Your task to perform on an android device: Go to accessibility settings Image 0: 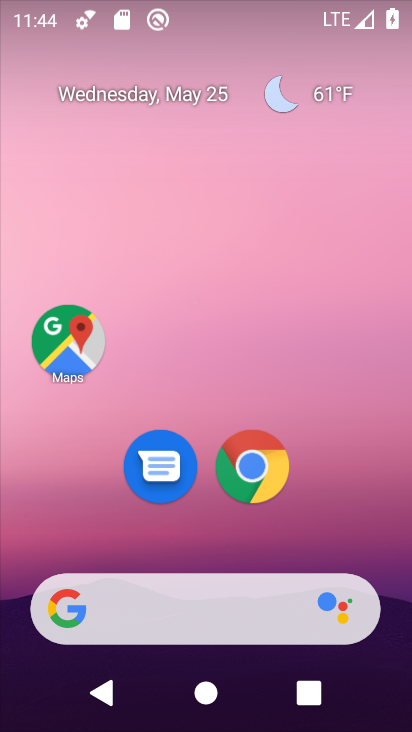
Step 0: drag from (204, 554) to (224, 19)
Your task to perform on an android device: Go to accessibility settings Image 1: 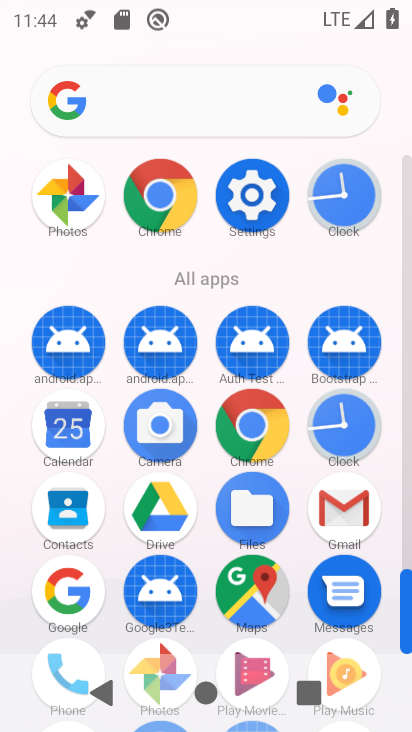
Step 1: click (273, 204)
Your task to perform on an android device: Go to accessibility settings Image 2: 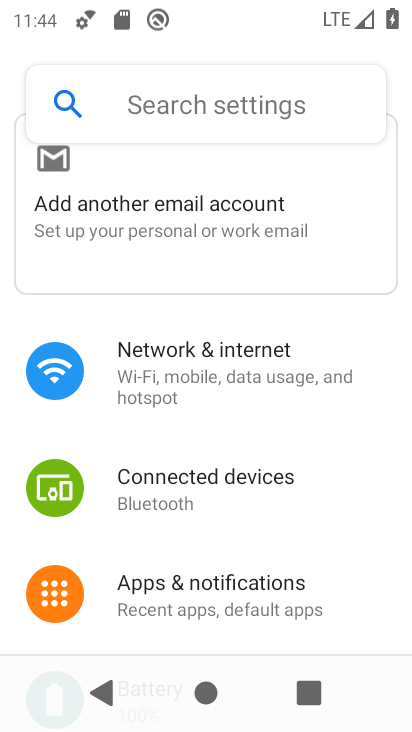
Step 2: drag from (242, 534) to (238, 109)
Your task to perform on an android device: Go to accessibility settings Image 3: 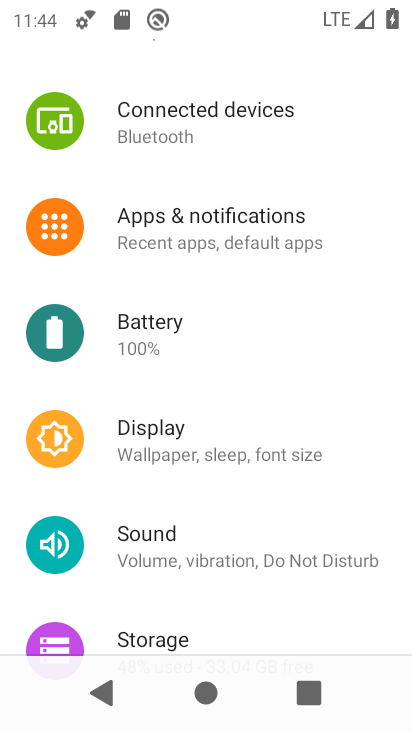
Step 3: drag from (179, 524) to (215, 113)
Your task to perform on an android device: Go to accessibility settings Image 4: 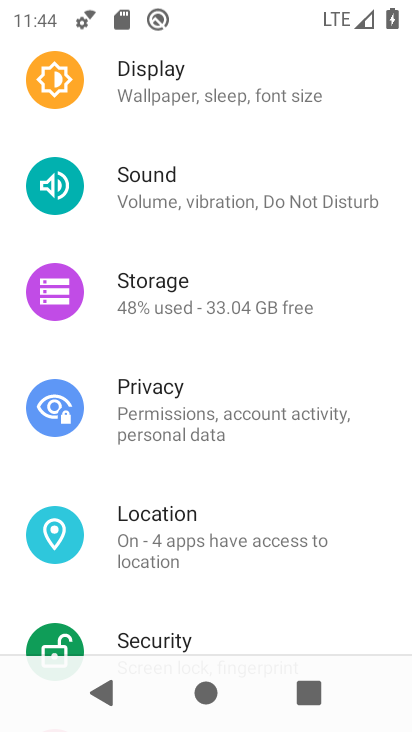
Step 4: drag from (178, 562) to (224, 178)
Your task to perform on an android device: Go to accessibility settings Image 5: 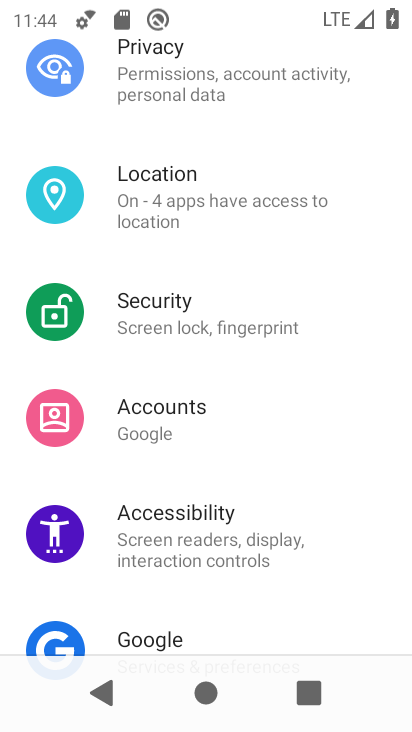
Step 5: click (150, 555)
Your task to perform on an android device: Go to accessibility settings Image 6: 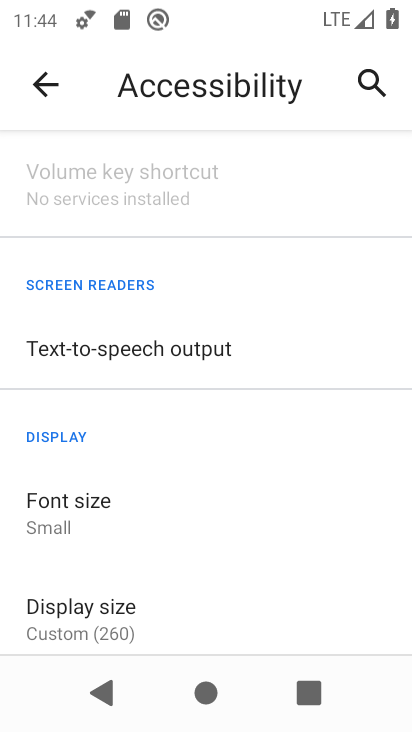
Step 6: task complete